Your task to perform on an android device: Open the phone app and click the voicemail tab. Image 0: 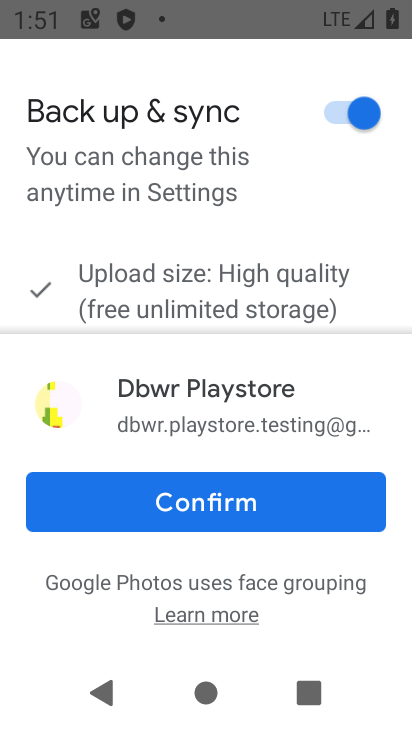
Step 0: press home button
Your task to perform on an android device: Open the phone app and click the voicemail tab. Image 1: 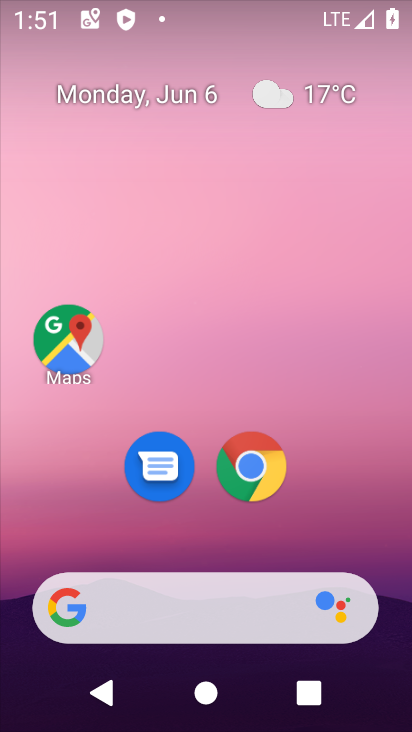
Step 1: drag from (204, 536) to (228, 98)
Your task to perform on an android device: Open the phone app and click the voicemail tab. Image 2: 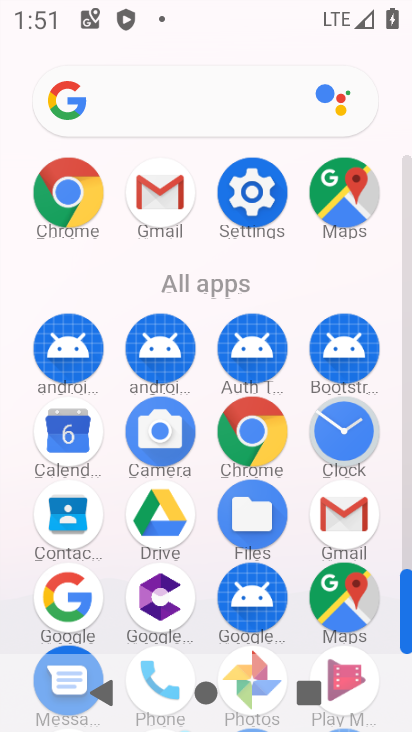
Step 2: drag from (386, 558) to (384, 296)
Your task to perform on an android device: Open the phone app and click the voicemail tab. Image 3: 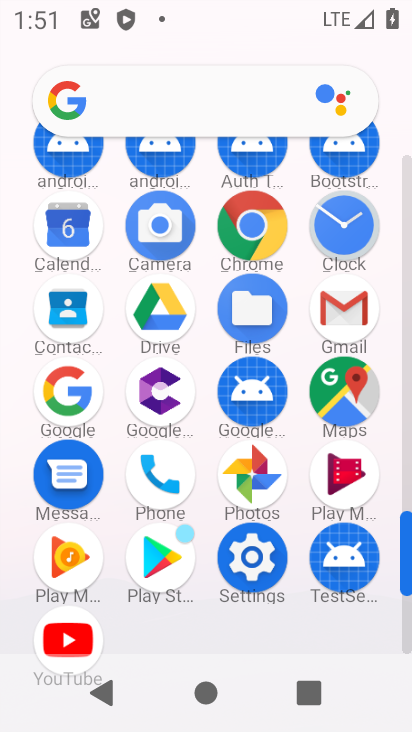
Step 3: click (156, 467)
Your task to perform on an android device: Open the phone app and click the voicemail tab. Image 4: 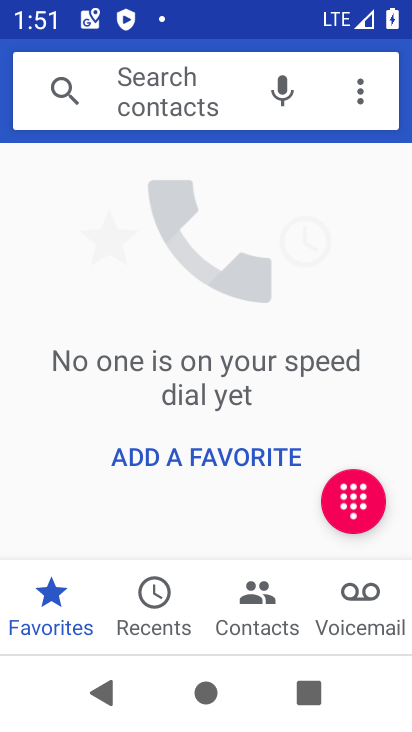
Step 4: click (372, 605)
Your task to perform on an android device: Open the phone app and click the voicemail tab. Image 5: 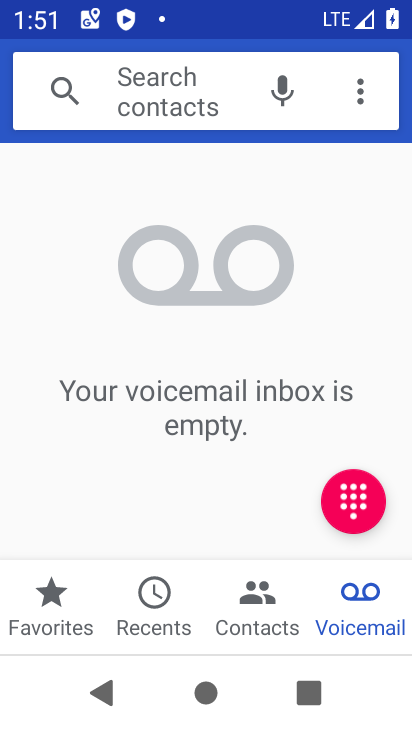
Step 5: task complete